Your task to perform on an android device: Do I have any events this weekend? Image 0: 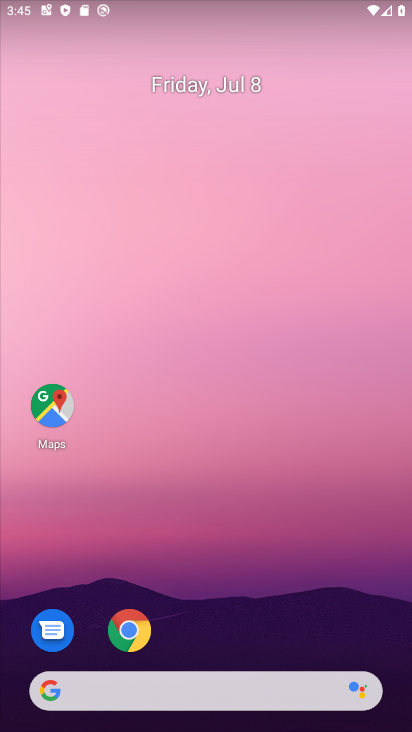
Step 0: drag from (246, 640) to (253, 121)
Your task to perform on an android device: Do I have any events this weekend? Image 1: 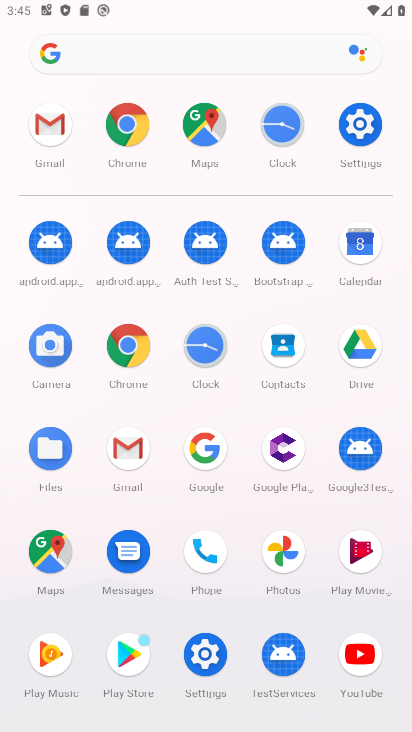
Step 1: click (345, 257)
Your task to perform on an android device: Do I have any events this weekend? Image 2: 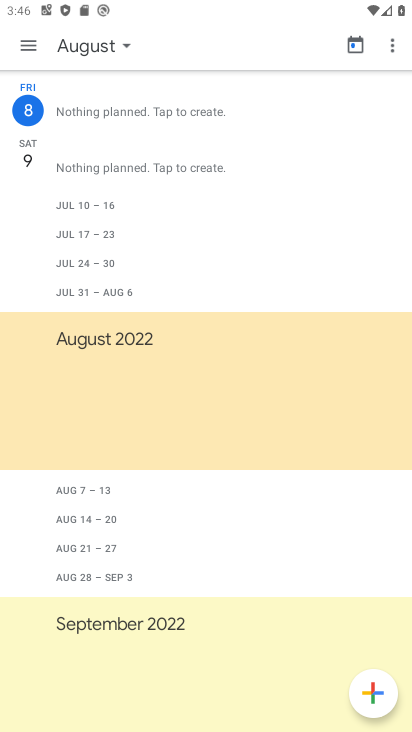
Step 2: click (127, 53)
Your task to perform on an android device: Do I have any events this weekend? Image 3: 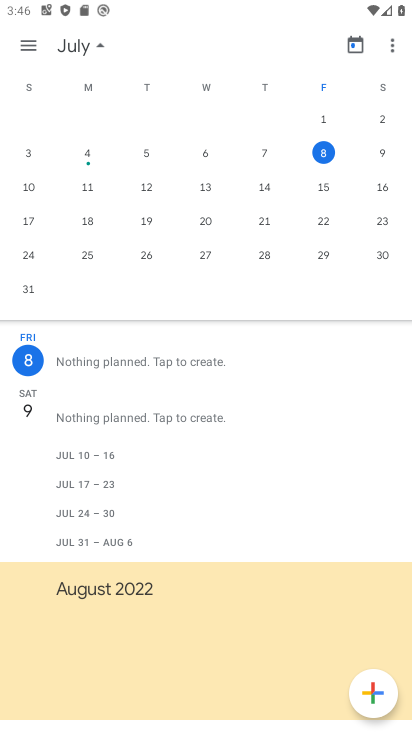
Step 3: task complete